Your task to perform on an android device: Do I have any events this weekend? Image 0: 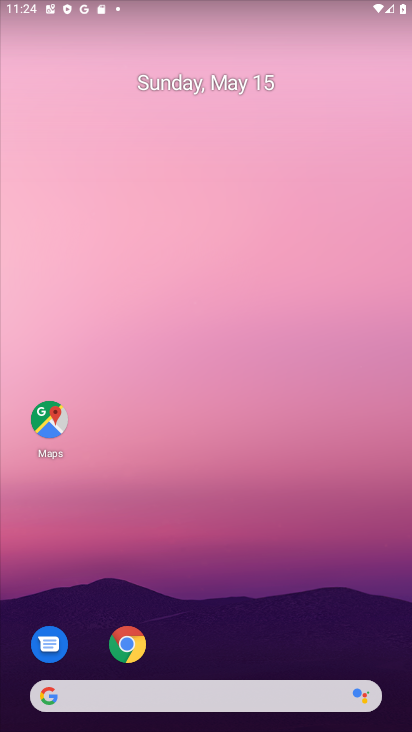
Step 0: drag from (215, 501) to (213, 433)
Your task to perform on an android device: Do I have any events this weekend? Image 1: 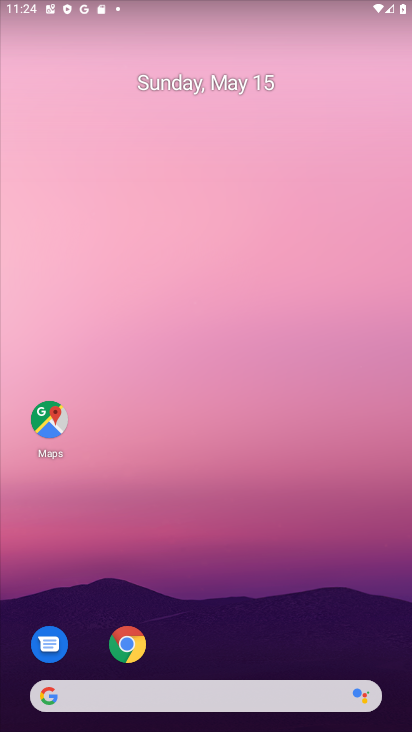
Step 1: click (197, 584)
Your task to perform on an android device: Do I have any events this weekend? Image 2: 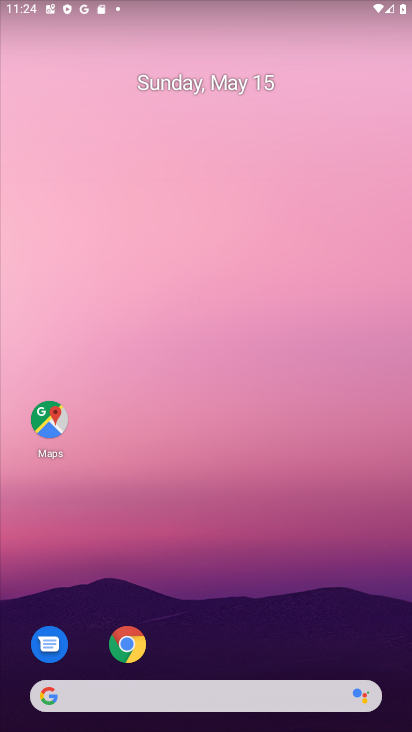
Step 2: drag from (166, 663) to (183, 473)
Your task to perform on an android device: Do I have any events this weekend? Image 3: 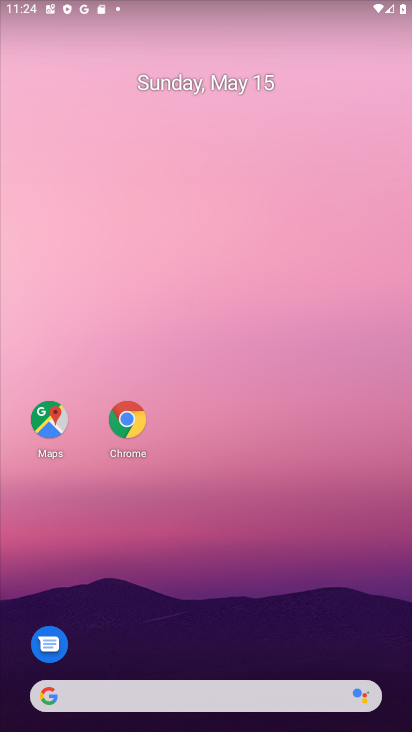
Step 3: drag from (202, 641) to (233, 257)
Your task to perform on an android device: Do I have any events this weekend? Image 4: 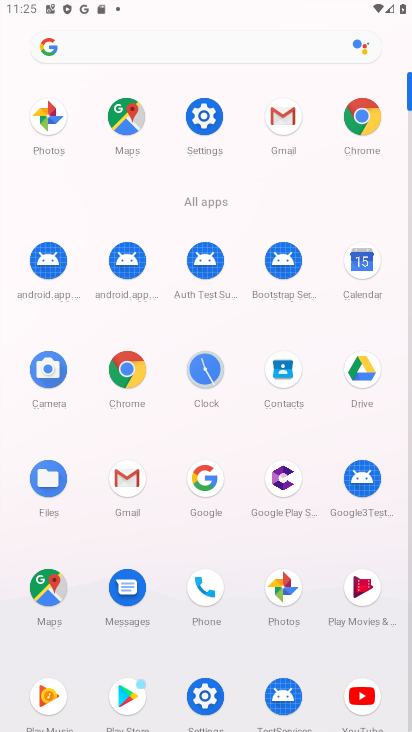
Step 4: click (357, 262)
Your task to perform on an android device: Do I have any events this weekend? Image 5: 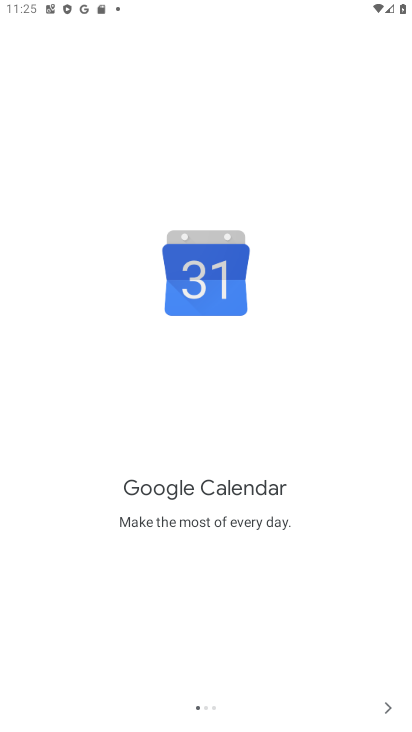
Step 5: drag from (238, 507) to (245, 230)
Your task to perform on an android device: Do I have any events this weekend? Image 6: 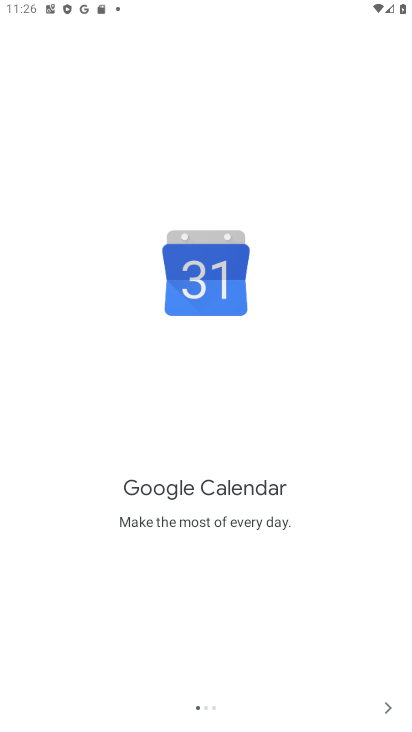
Step 6: click (399, 715)
Your task to perform on an android device: Do I have any events this weekend? Image 7: 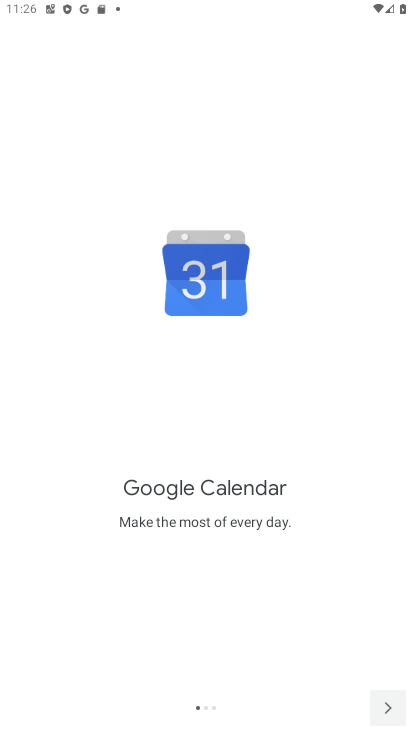
Step 7: click (399, 715)
Your task to perform on an android device: Do I have any events this weekend? Image 8: 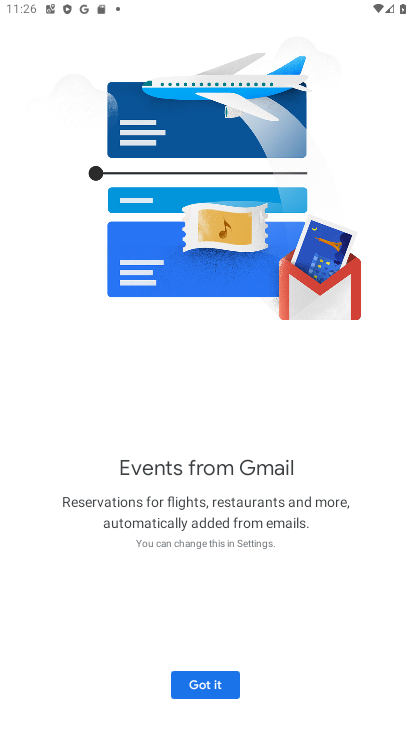
Step 8: click (391, 708)
Your task to perform on an android device: Do I have any events this weekend? Image 9: 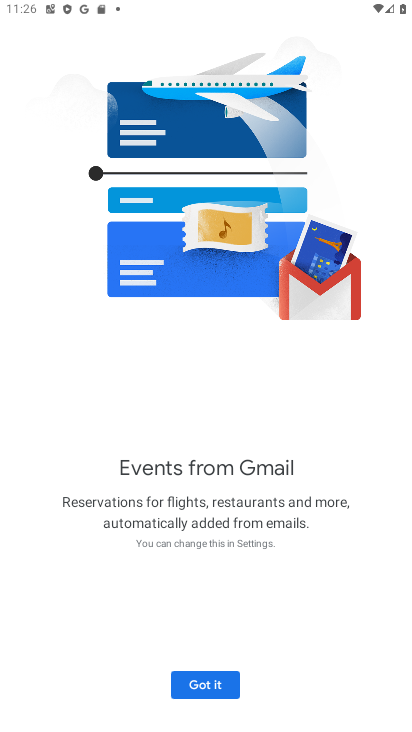
Step 9: click (391, 708)
Your task to perform on an android device: Do I have any events this weekend? Image 10: 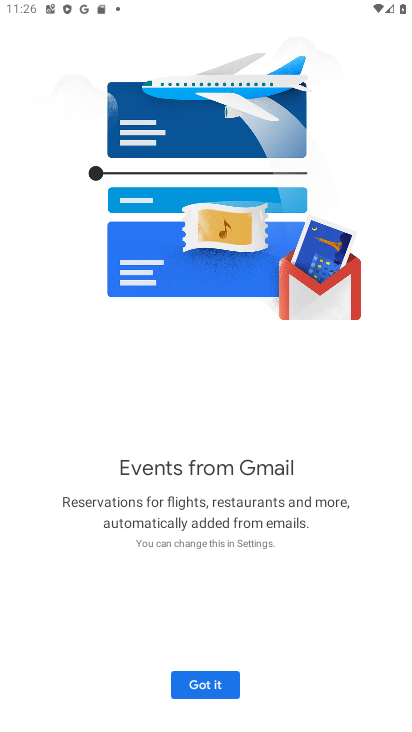
Step 10: click (235, 691)
Your task to perform on an android device: Do I have any events this weekend? Image 11: 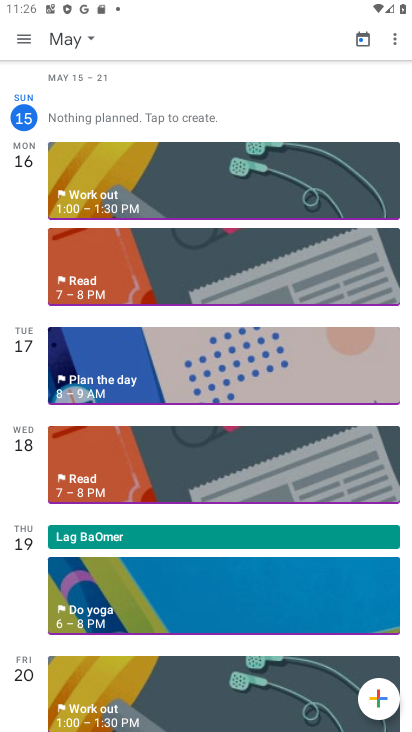
Step 11: drag from (184, 561) to (201, 48)
Your task to perform on an android device: Do I have any events this weekend? Image 12: 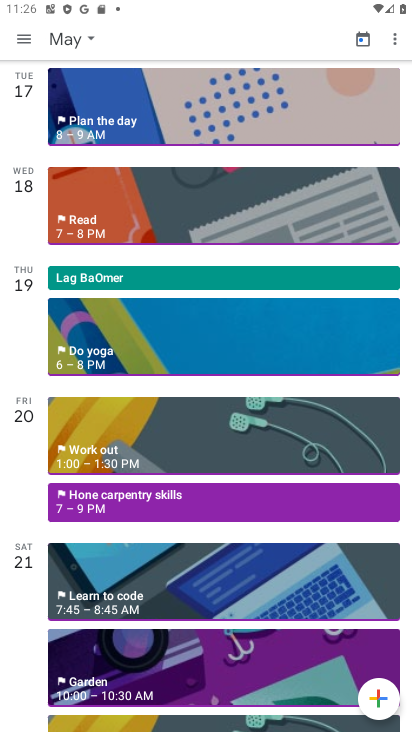
Step 12: click (75, 37)
Your task to perform on an android device: Do I have any events this weekend? Image 13: 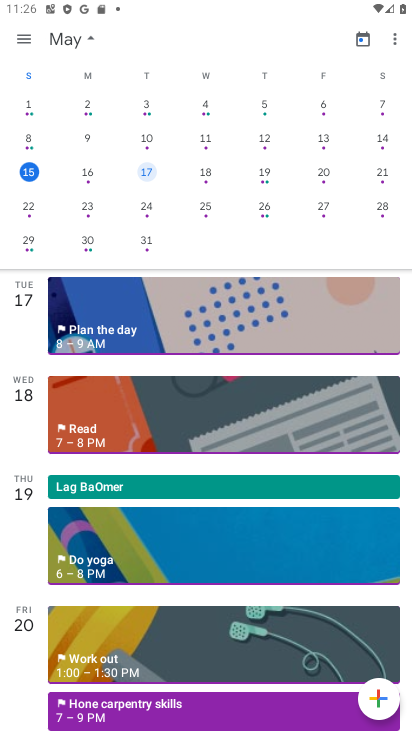
Step 13: click (197, 179)
Your task to perform on an android device: Do I have any events this weekend? Image 14: 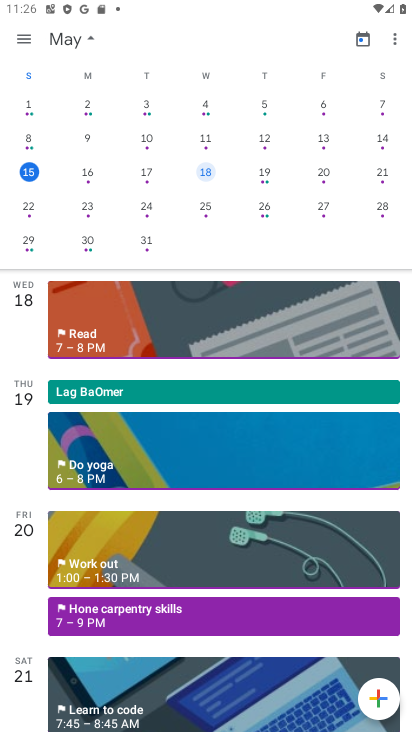
Step 14: drag from (213, 727) to (291, 322)
Your task to perform on an android device: Do I have any events this weekend? Image 15: 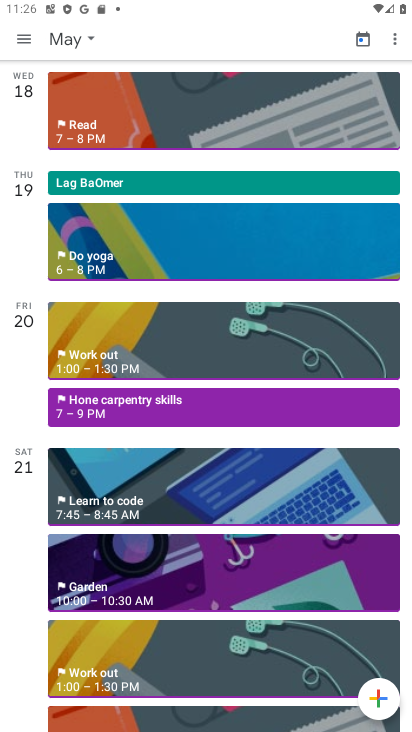
Step 15: drag from (206, 636) to (322, 276)
Your task to perform on an android device: Do I have any events this weekend? Image 16: 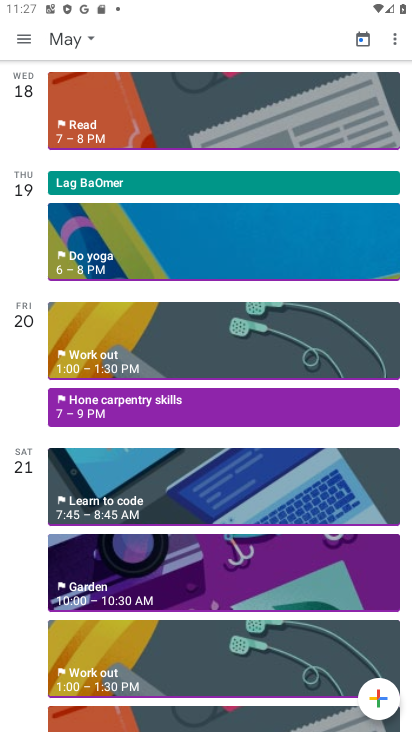
Step 16: drag from (188, 555) to (256, 128)
Your task to perform on an android device: Do I have any events this weekend? Image 17: 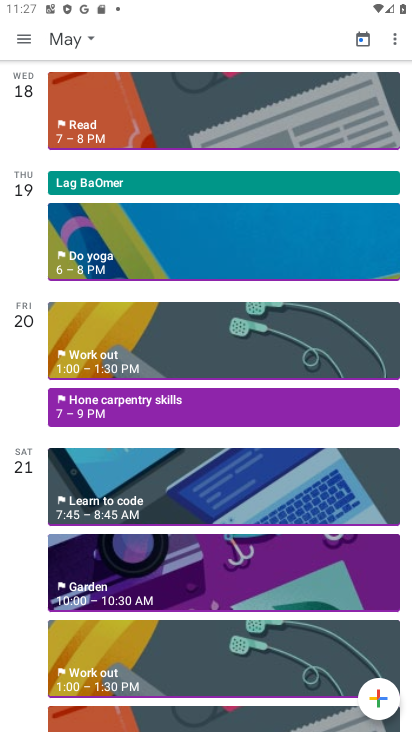
Step 17: drag from (251, 63) to (202, 722)
Your task to perform on an android device: Do I have any events this weekend? Image 18: 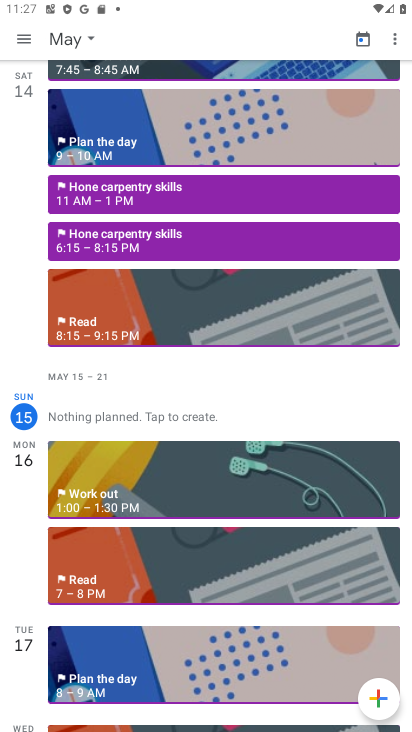
Step 18: click (69, 42)
Your task to perform on an android device: Do I have any events this weekend? Image 19: 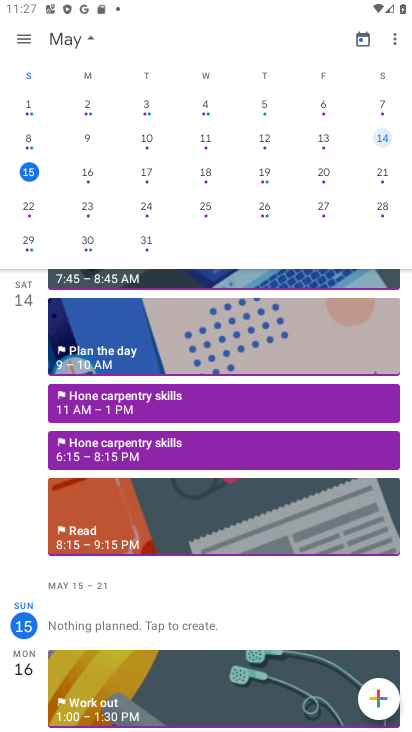
Step 19: click (149, 162)
Your task to perform on an android device: Do I have any events this weekend? Image 20: 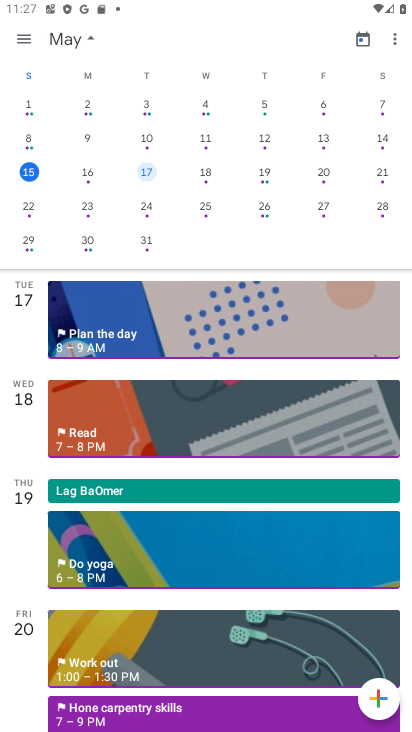
Step 20: click (176, 162)
Your task to perform on an android device: Do I have any events this weekend? Image 21: 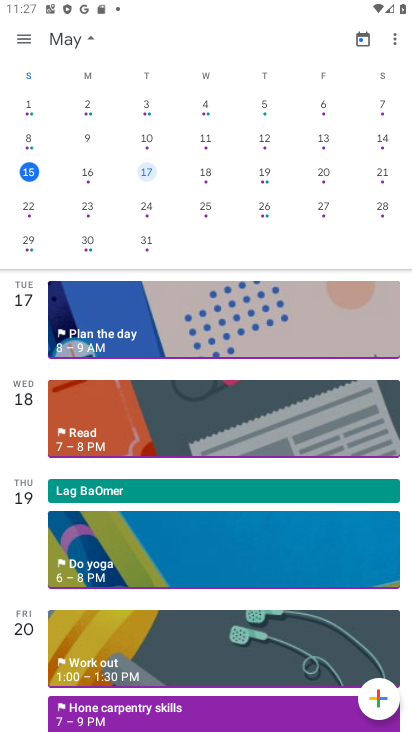
Step 21: click (204, 165)
Your task to perform on an android device: Do I have any events this weekend? Image 22: 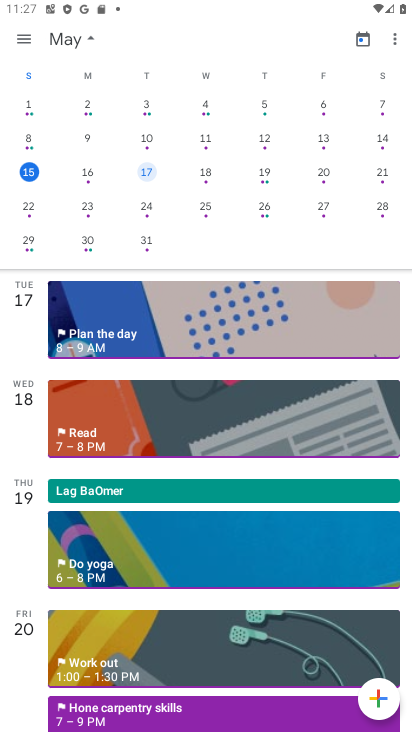
Step 22: task complete